Your task to perform on an android device: Open Wikipedia Image 0: 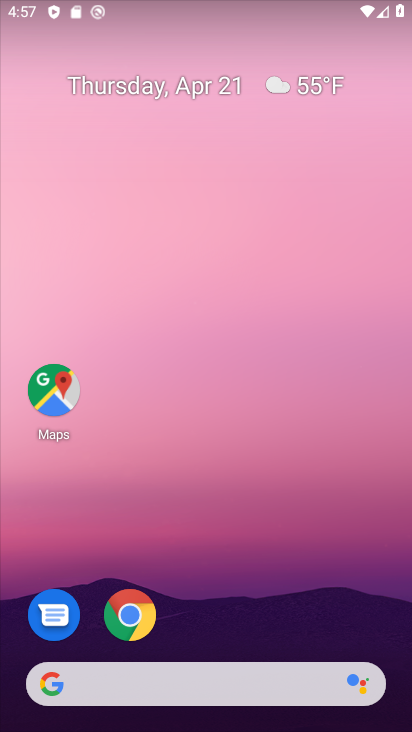
Step 0: drag from (203, 536) to (177, 36)
Your task to perform on an android device: Open Wikipedia Image 1: 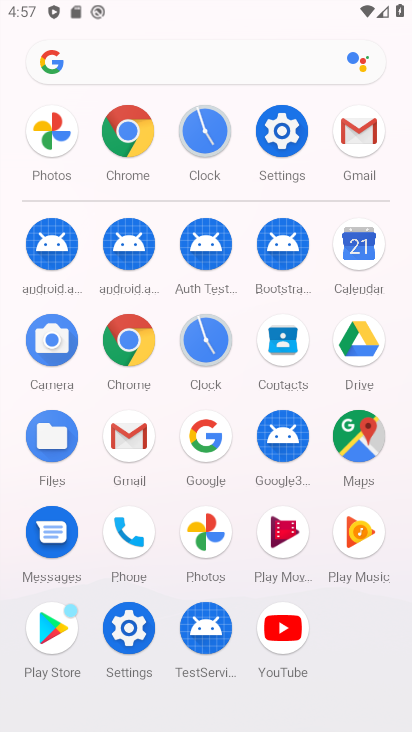
Step 1: drag from (6, 514) to (2, 318)
Your task to perform on an android device: Open Wikipedia Image 2: 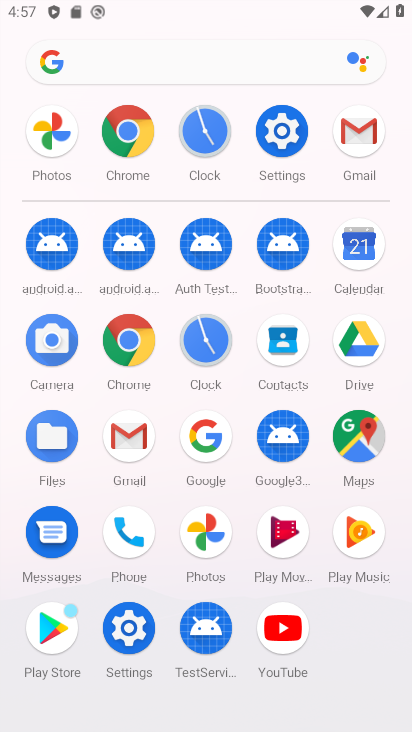
Step 2: click (130, 127)
Your task to perform on an android device: Open Wikipedia Image 3: 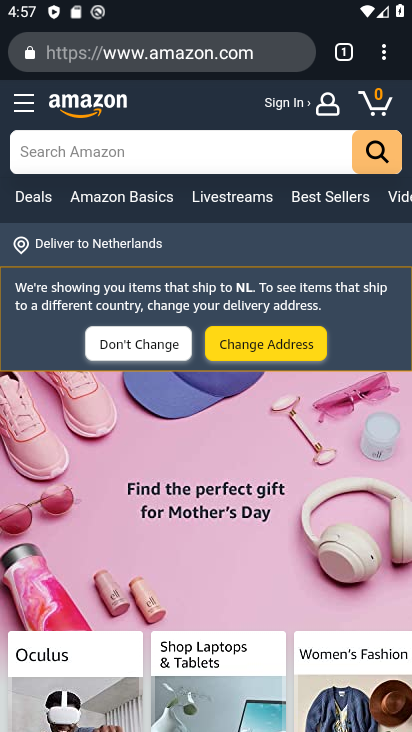
Step 3: click (207, 55)
Your task to perform on an android device: Open Wikipedia Image 4: 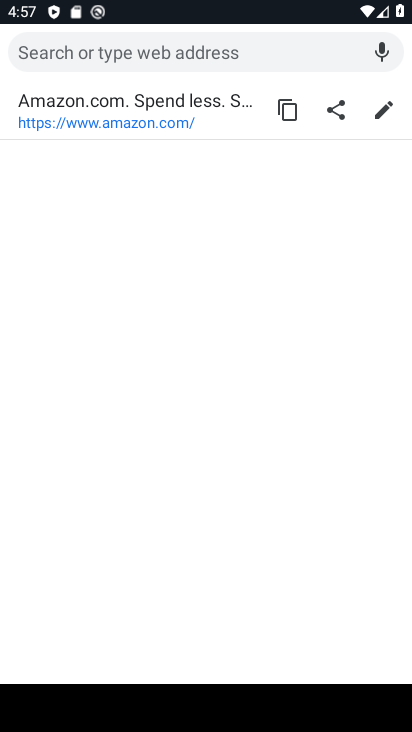
Step 4: type "Wikipedia"
Your task to perform on an android device: Open Wikipedia Image 5: 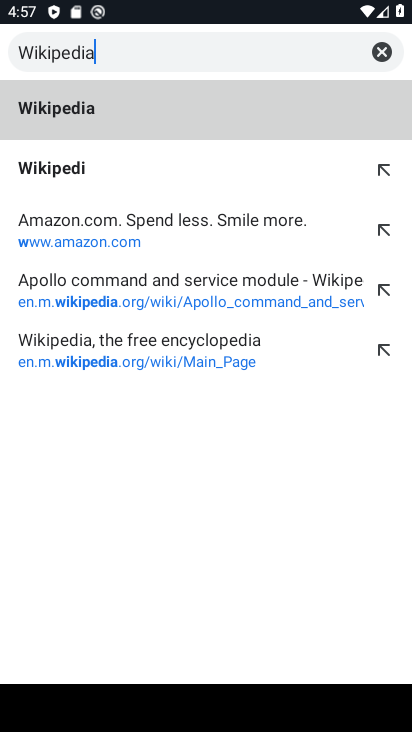
Step 5: type ""
Your task to perform on an android device: Open Wikipedia Image 6: 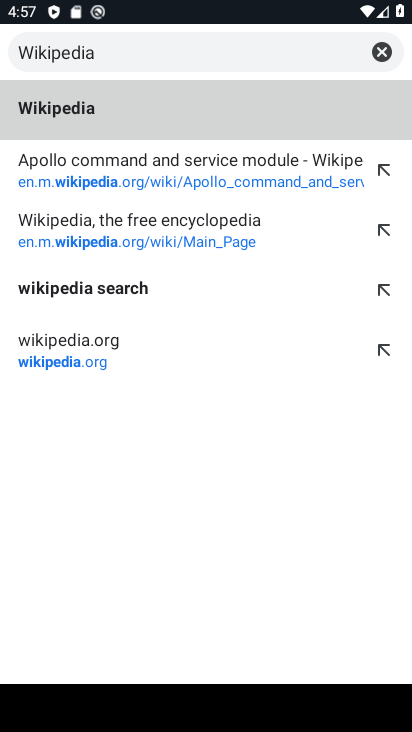
Step 6: click (110, 167)
Your task to perform on an android device: Open Wikipedia Image 7: 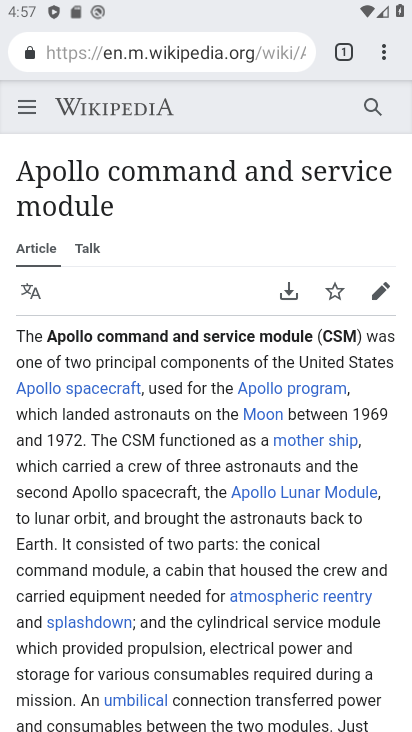
Step 7: task complete